Your task to perform on an android device: clear history in the chrome app Image 0: 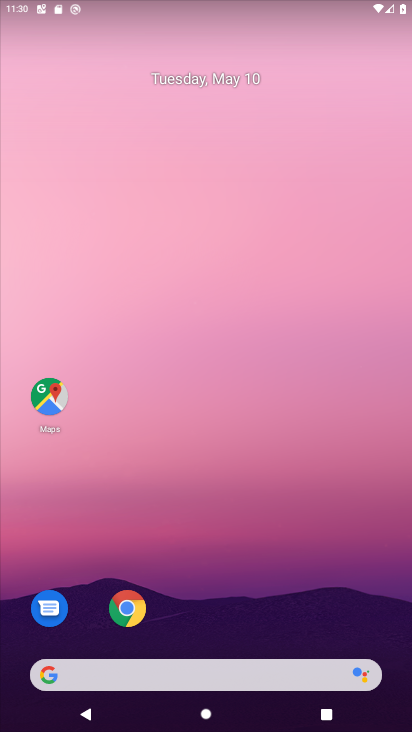
Step 0: click (132, 618)
Your task to perform on an android device: clear history in the chrome app Image 1: 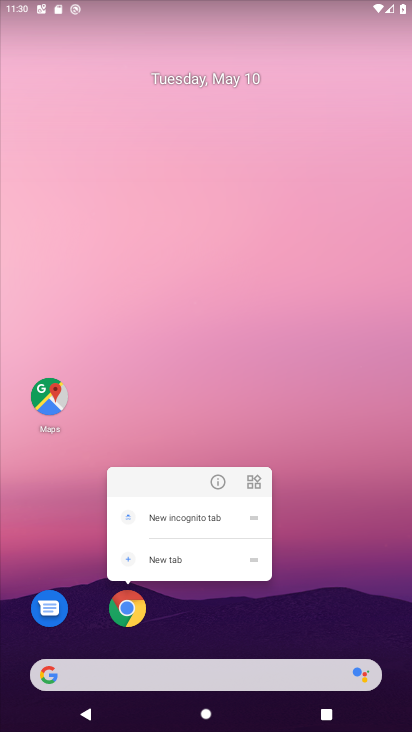
Step 1: click (128, 606)
Your task to perform on an android device: clear history in the chrome app Image 2: 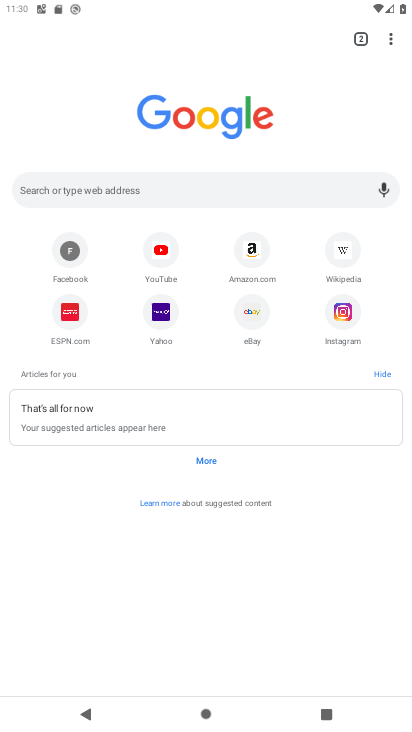
Step 2: click (392, 34)
Your task to perform on an android device: clear history in the chrome app Image 3: 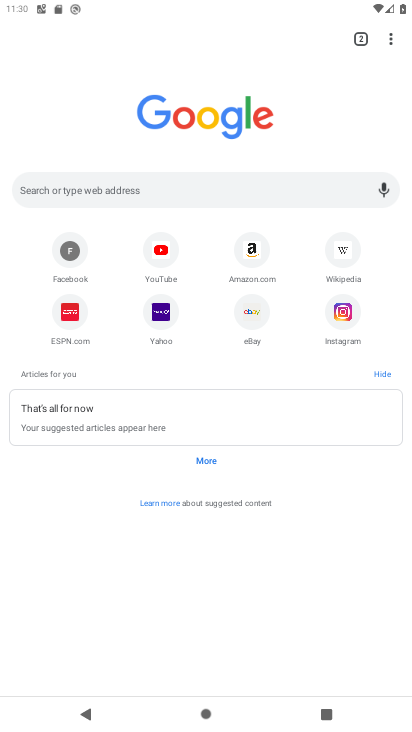
Step 3: drag from (393, 37) to (245, 268)
Your task to perform on an android device: clear history in the chrome app Image 4: 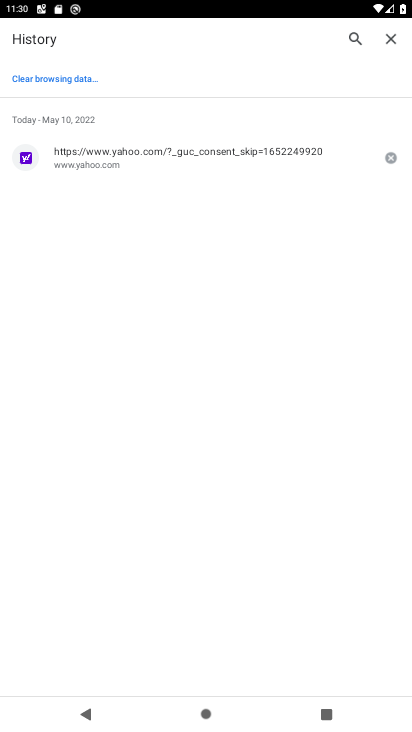
Step 4: click (34, 76)
Your task to perform on an android device: clear history in the chrome app Image 5: 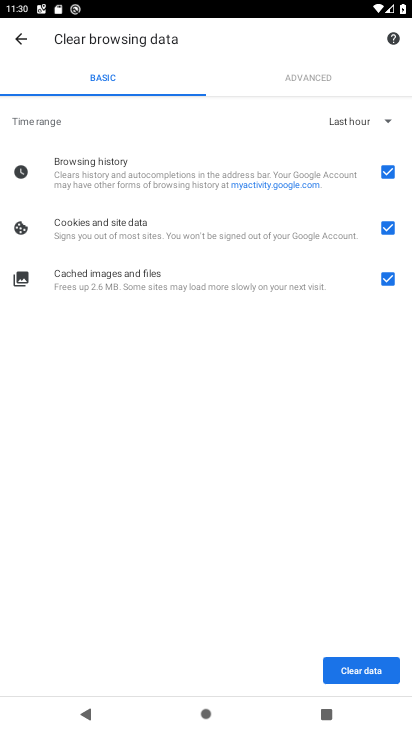
Step 5: click (321, 670)
Your task to perform on an android device: clear history in the chrome app Image 6: 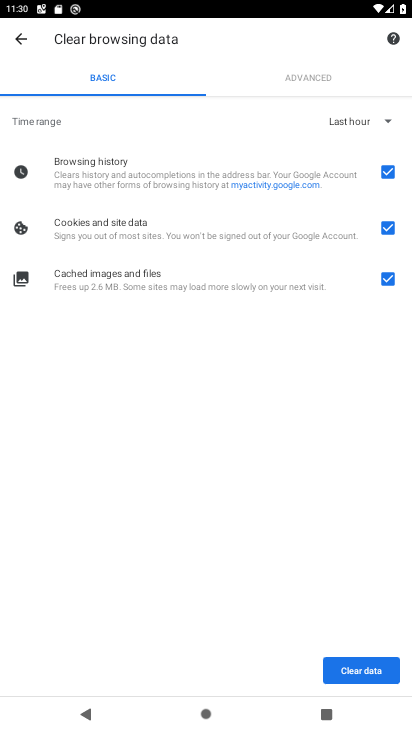
Step 6: click (330, 671)
Your task to perform on an android device: clear history in the chrome app Image 7: 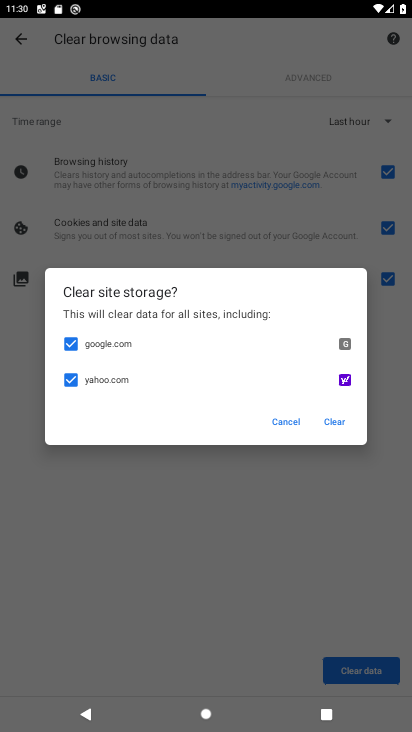
Step 7: click (337, 420)
Your task to perform on an android device: clear history in the chrome app Image 8: 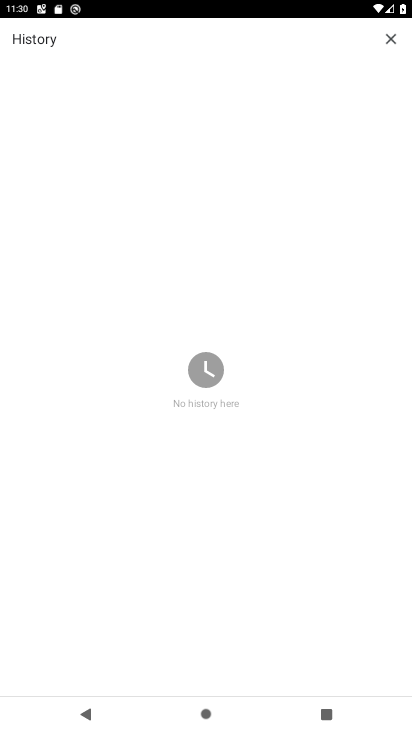
Step 8: task complete